Your task to perform on an android device: Open the calendar and show me this week's events? Image 0: 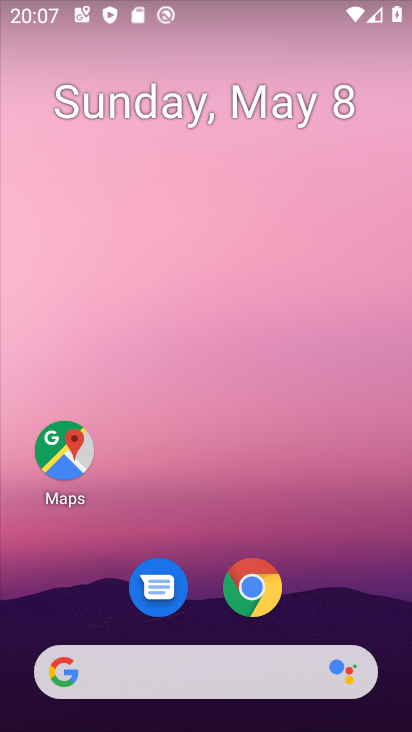
Step 0: drag from (199, 514) to (210, 22)
Your task to perform on an android device: Open the calendar and show me this week's events? Image 1: 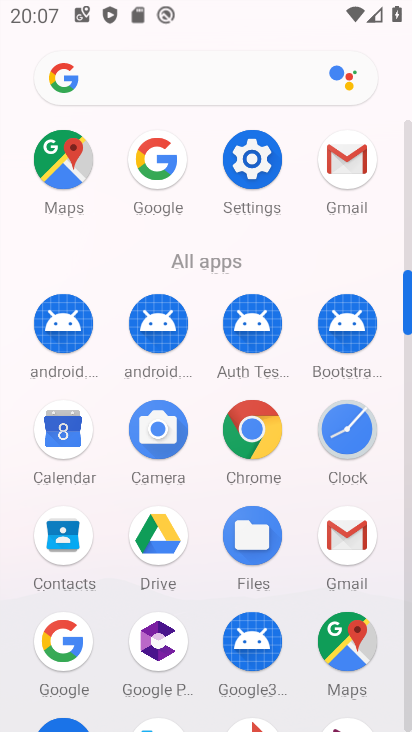
Step 1: click (62, 427)
Your task to perform on an android device: Open the calendar and show me this week's events? Image 2: 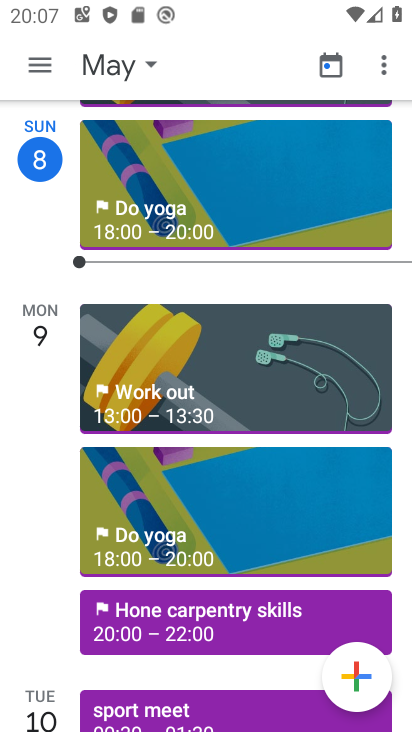
Step 2: click (154, 64)
Your task to perform on an android device: Open the calendar and show me this week's events? Image 3: 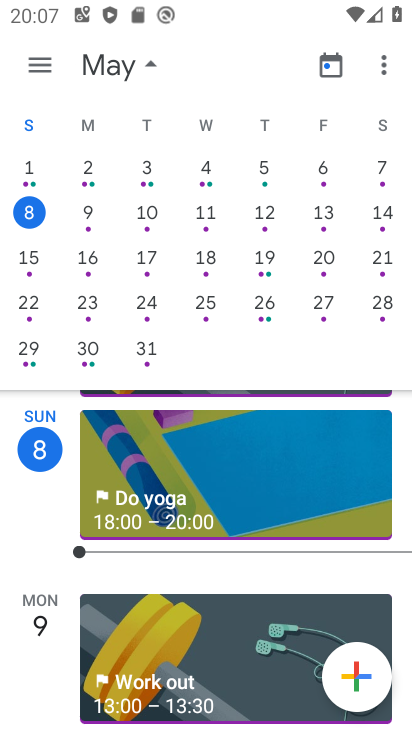
Step 3: task complete